Your task to perform on an android device: toggle javascript in the chrome app Image 0: 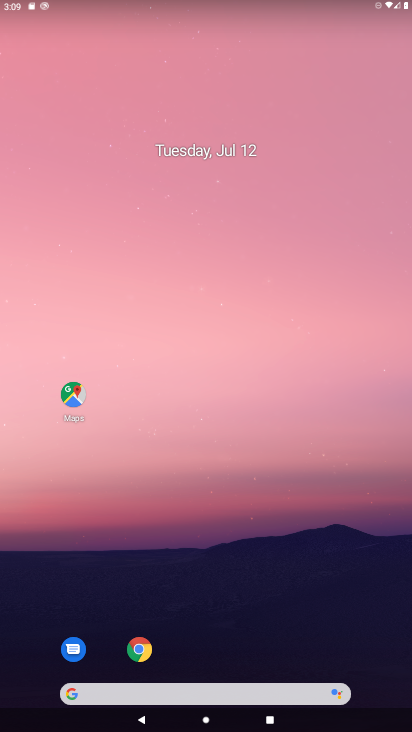
Step 0: click (149, 657)
Your task to perform on an android device: toggle javascript in the chrome app Image 1: 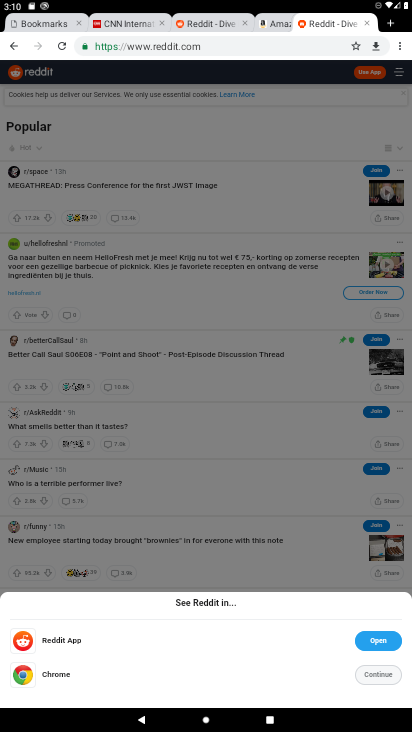
Step 1: click (397, 41)
Your task to perform on an android device: toggle javascript in the chrome app Image 2: 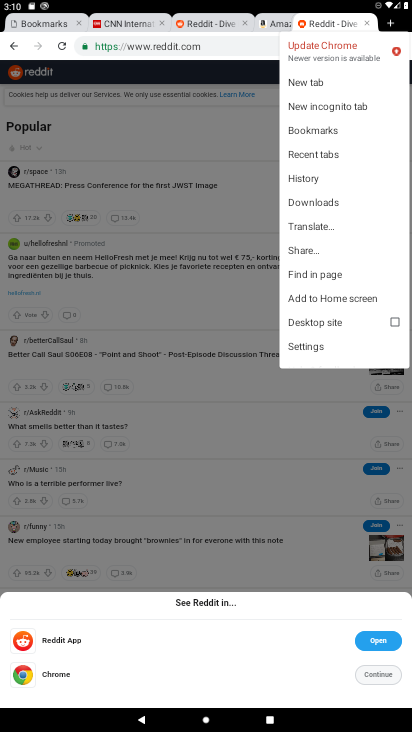
Step 2: click (325, 354)
Your task to perform on an android device: toggle javascript in the chrome app Image 3: 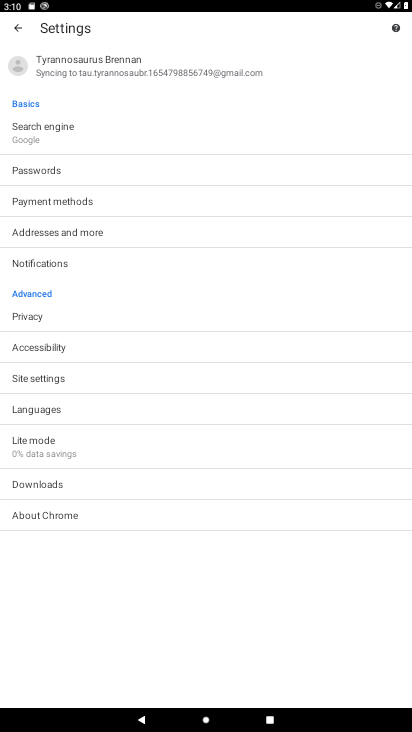
Step 3: click (115, 378)
Your task to perform on an android device: toggle javascript in the chrome app Image 4: 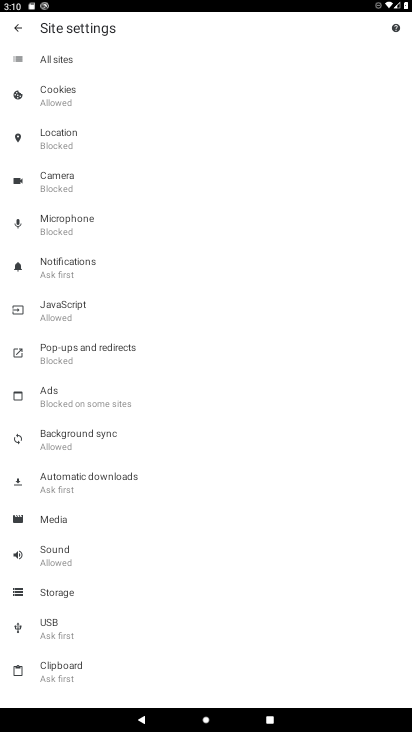
Step 4: click (85, 312)
Your task to perform on an android device: toggle javascript in the chrome app Image 5: 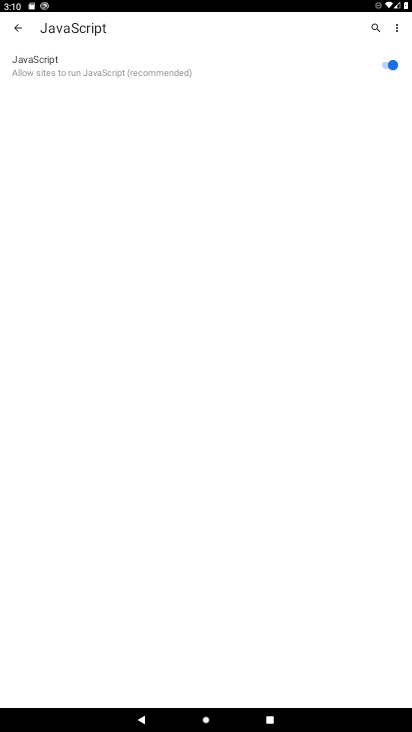
Step 5: task complete